Your task to perform on an android device: see tabs open on other devices in the chrome app Image 0: 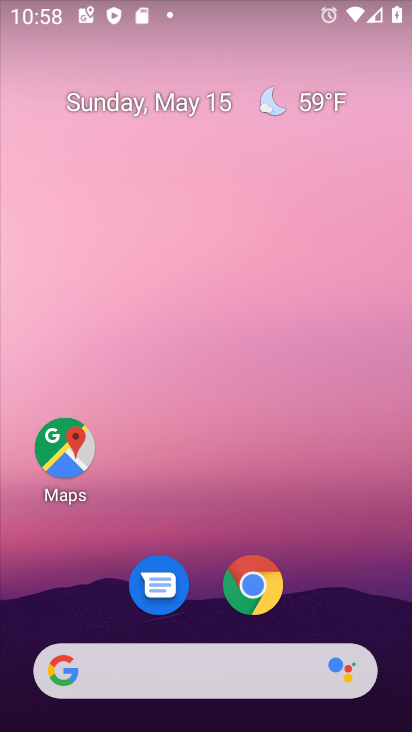
Step 0: click (263, 578)
Your task to perform on an android device: see tabs open on other devices in the chrome app Image 1: 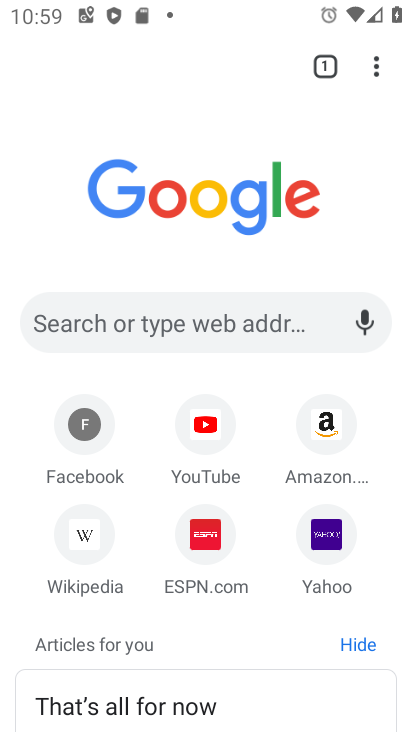
Step 1: click (371, 62)
Your task to perform on an android device: see tabs open on other devices in the chrome app Image 2: 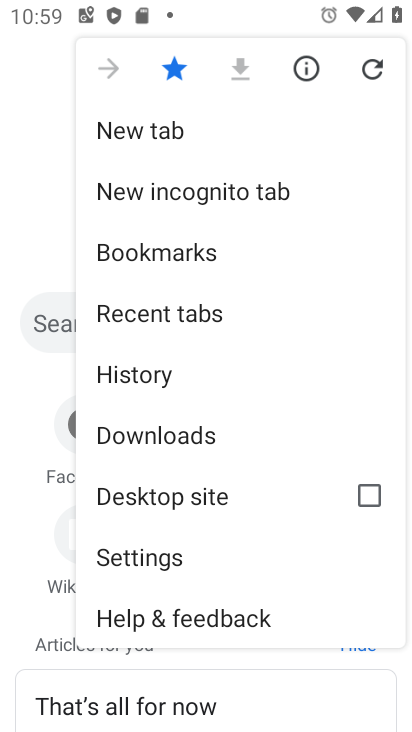
Step 2: click (189, 306)
Your task to perform on an android device: see tabs open on other devices in the chrome app Image 3: 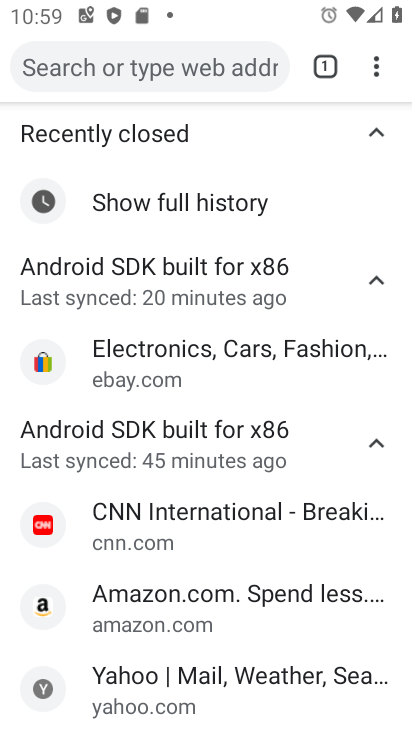
Step 3: task complete